Your task to perform on an android device: delete the emails in spam in the gmail app Image 0: 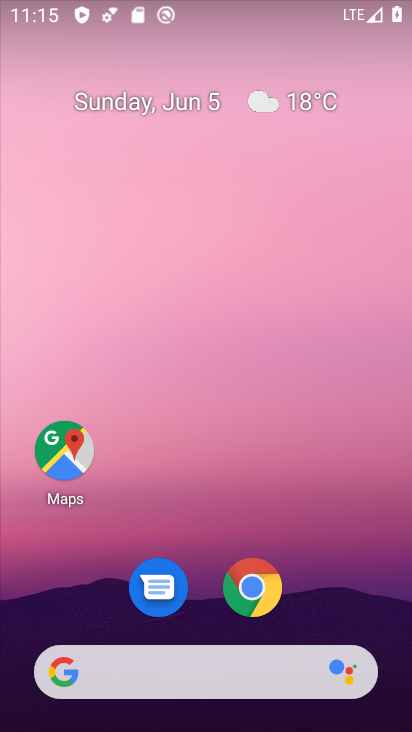
Step 0: drag from (195, 624) to (250, 177)
Your task to perform on an android device: delete the emails in spam in the gmail app Image 1: 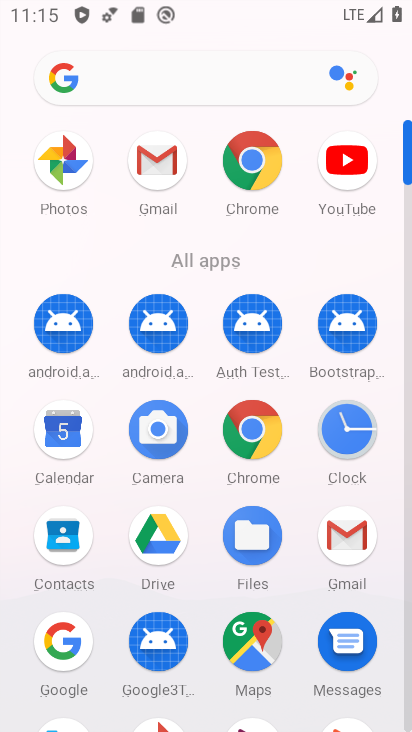
Step 1: click (150, 183)
Your task to perform on an android device: delete the emails in spam in the gmail app Image 2: 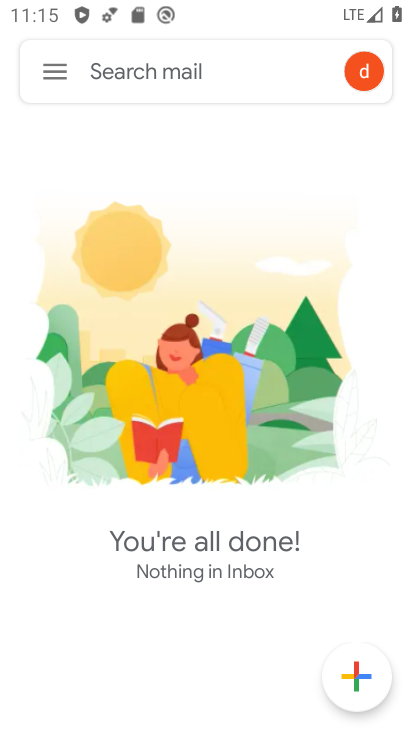
Step 2: click (44, 73)
Your task to perform on an android device: delete the emails in spam in the gmail app Image 3: 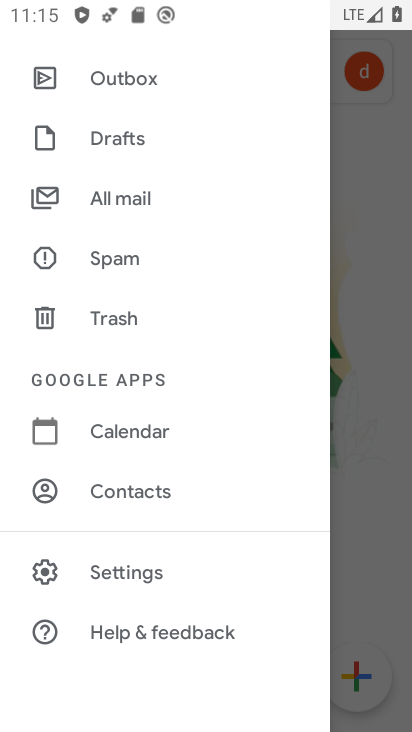
Step 3: click (90, 250)
Your task to perform on an android device: delete the emails in spam in the gmail app Image 4: 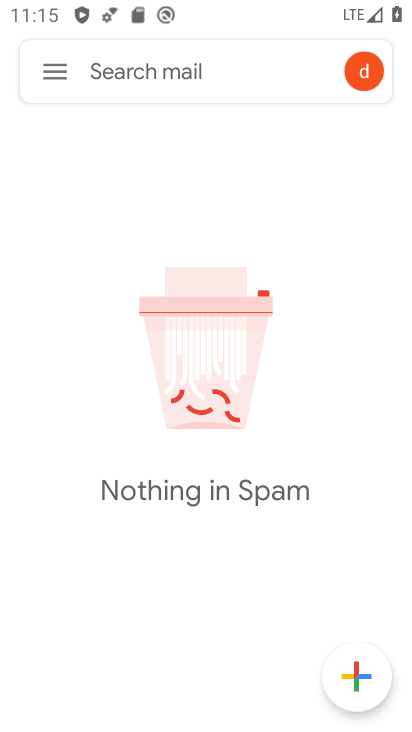
Step 4: task complete